Your task to perform on an android device: Open notification settings Image 0: 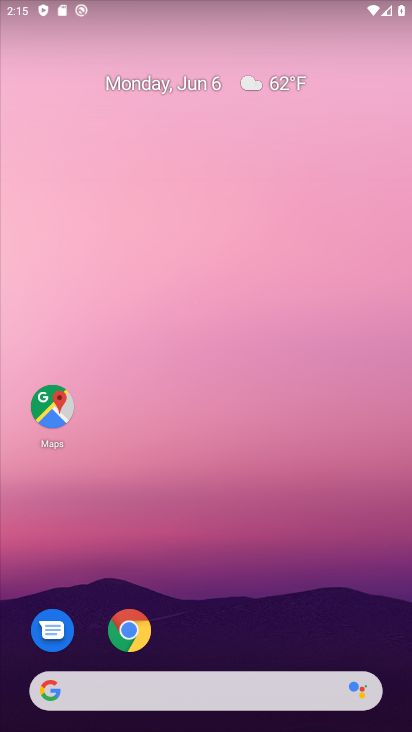
Step 0: drag from (221, 631) to (213, 37)
Your task to perform on an android device: Open notification settings Image 1: 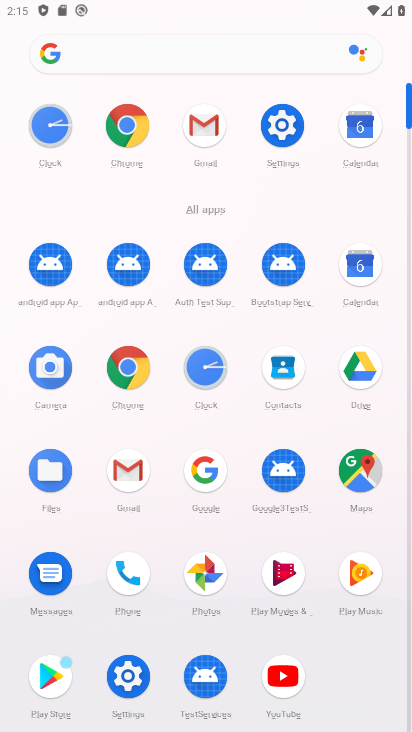
Step 1: click (122, 676)
Your task to perform on an android device: Open notification settings Image 2: 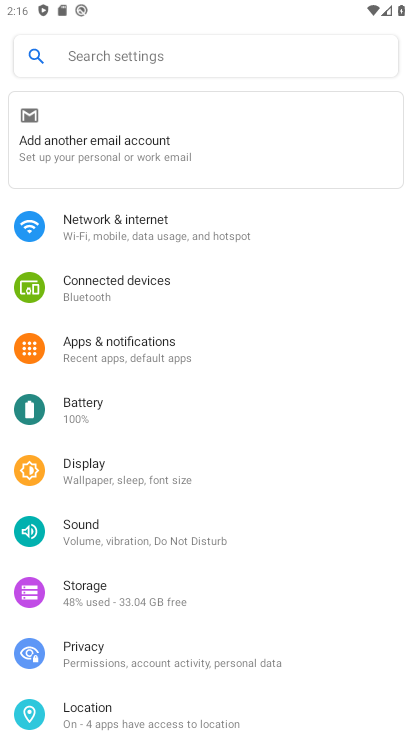
Step 2: click (157, 350)
Your task to perform on an android device: Open notification settings Image 3: 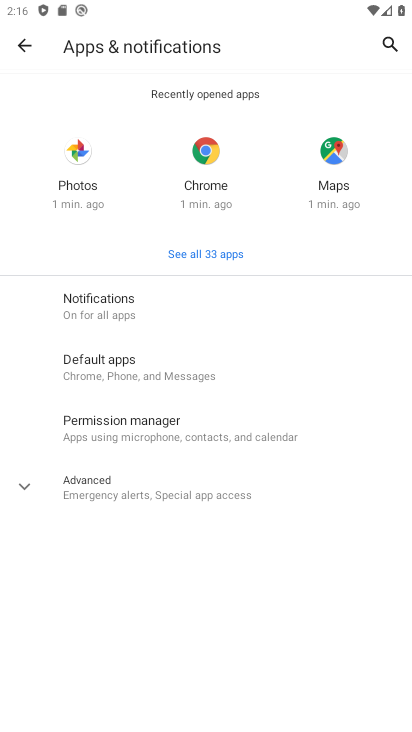
Step 3: click (103, 311)
Your task to perform on an android device: Open notification settings Image 4: 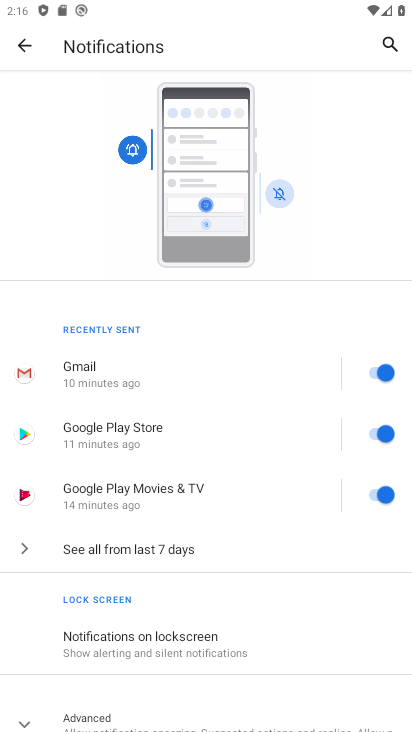
Step 4: task complete